Your task to perform on an android device: turn vacation reply on in the gmail app Image 0: 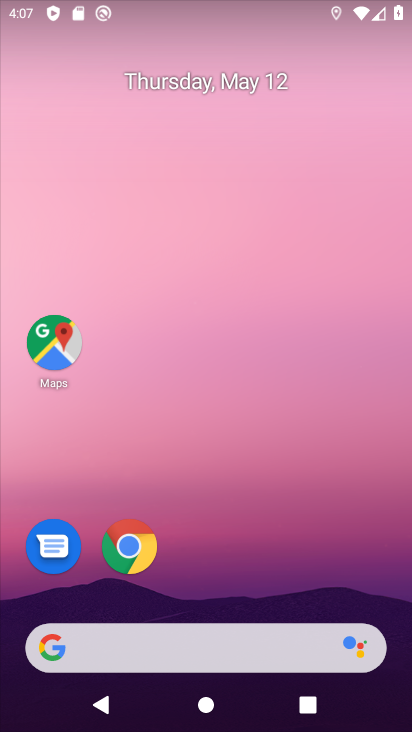
Step 0: drag from (249, 515) to (200, 21)
Your task to perform on an android device: turn vacation reply on in the gmail app Image 1: 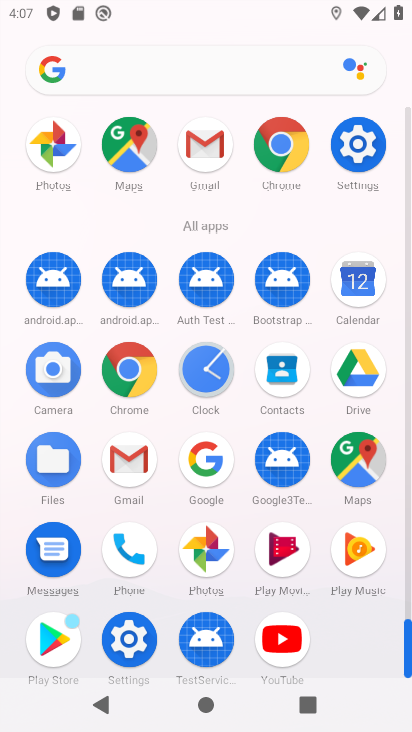
Step 1: drag from (9, 467) to (19, 216)
Your task to perform on an android device: turn vacation reply on in the gmail app Image 2: 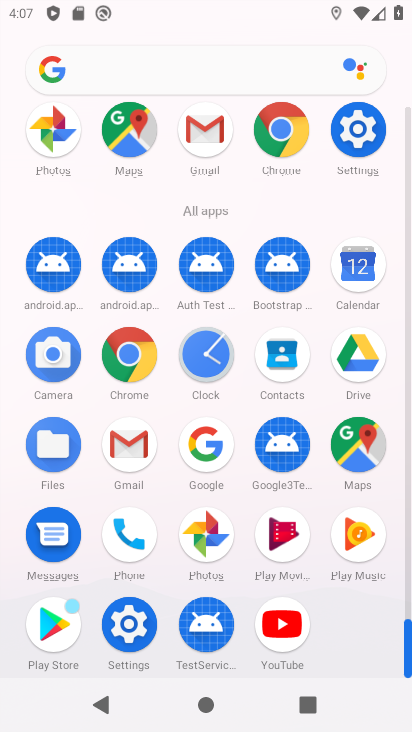
Step 2: click (123, 440)
Your task to perform on an android device: turn vacation reply on in the gmail app Image 3: 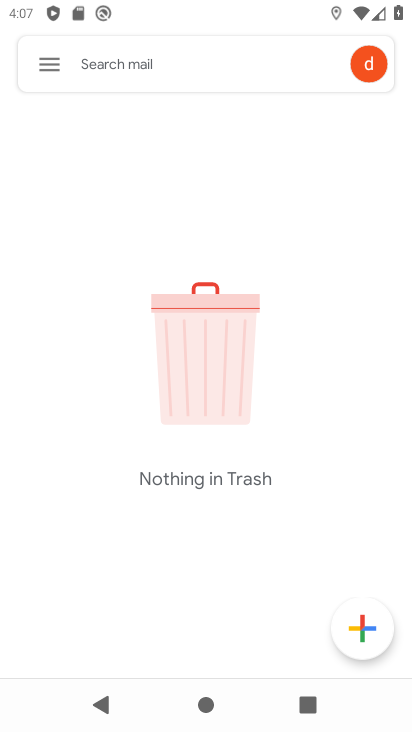
Step 3: click (47, 62)
Your task to perform on an android device: turn vacation reply on in the gmail app Image 4: 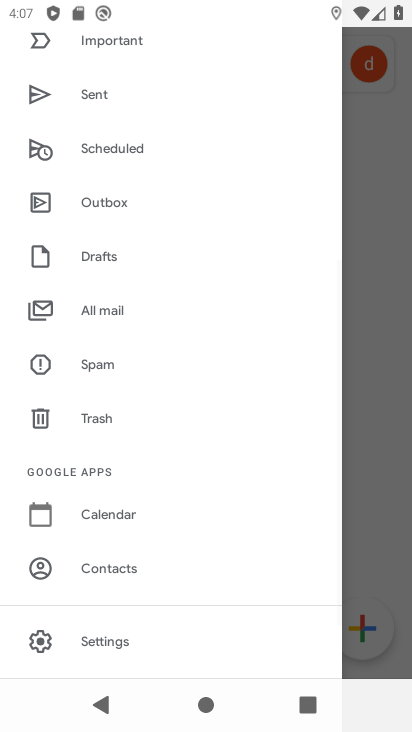
Step 4: drag from (175, 600) to (191, 173)
Your task to perform on an android device: turn vacation reply on in the gmail app Image 5: 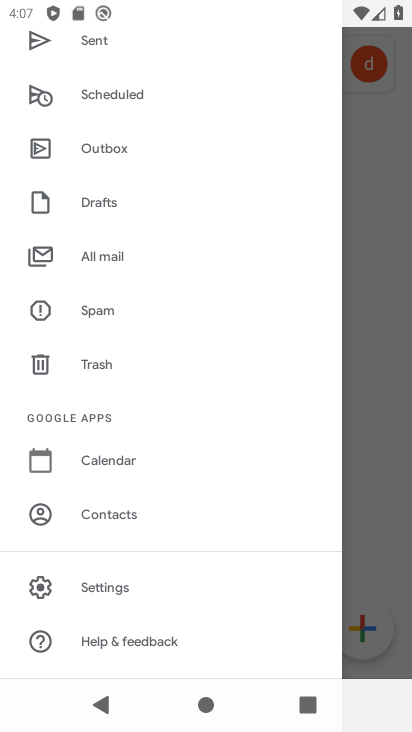
Step 5: click (91, 582)
Your task to perform on an android device: turn vacation reply on in the gmail app Image 6: 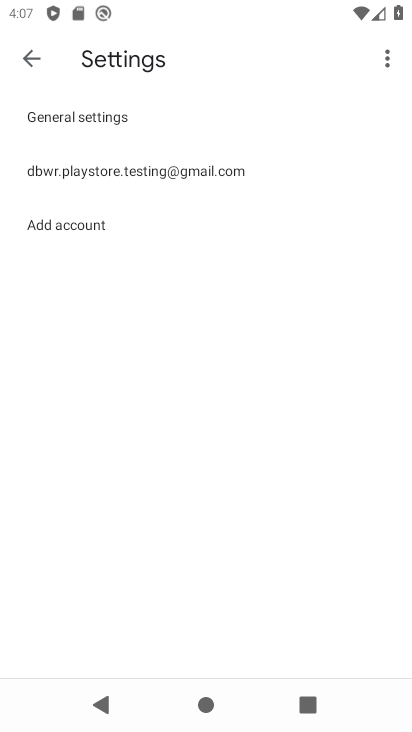
Step 6: click (154, 177)
Your task to perform on an android device: turn vacation reply on in the gmail app Image 7: 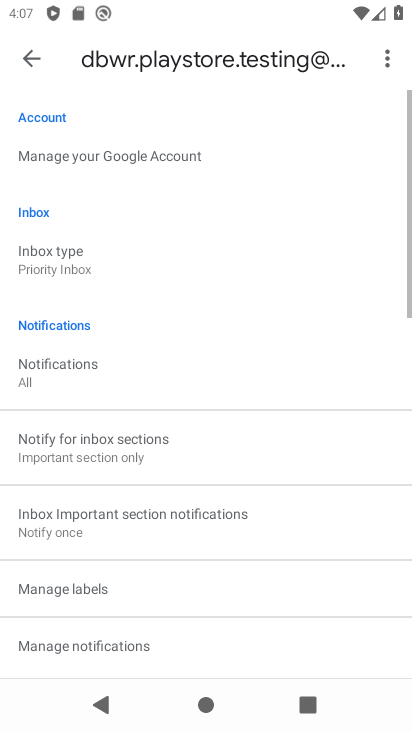
Step 7: drag from (213, 615) to (219, 139)
Your task to perform on an android device: turn vacation reply on in the gmail app Image 8: 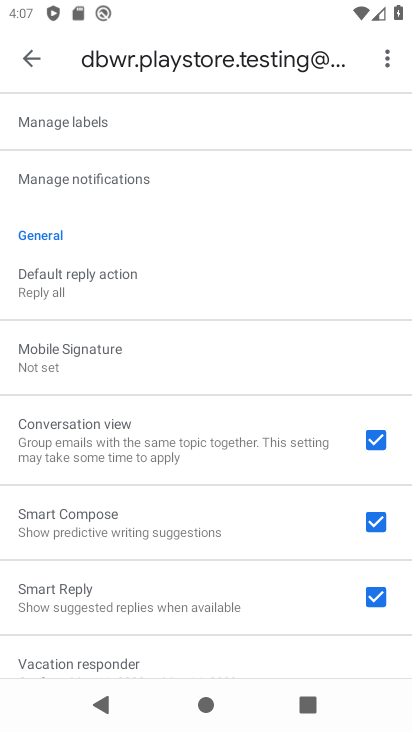
Step 8: drag from (186, 517) to (202, 181)
Your task to perform on an android device: turn vacation reply on in the gmail app Image 9: 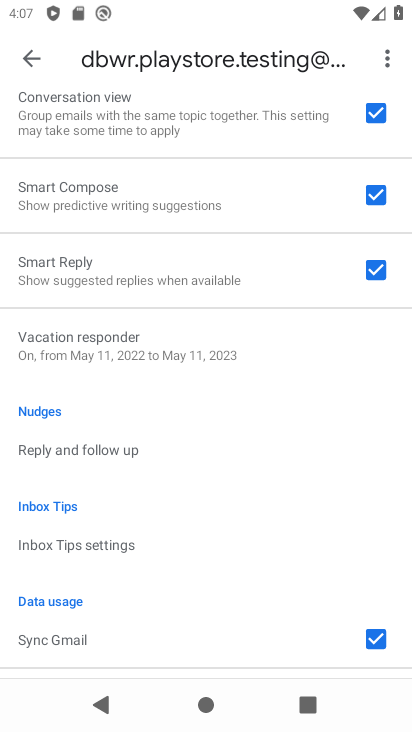
Step 9: click (132, 339)
Your task to perform on an android device: turn vacation reply on in the gmail app Image 10: 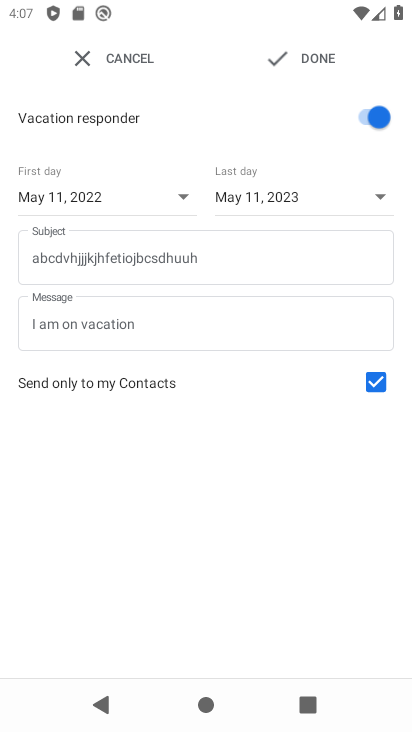
Step 10: click (291, 58)
Your task to perform on an android device: turn vacation reply on in the gmail app Image 11: 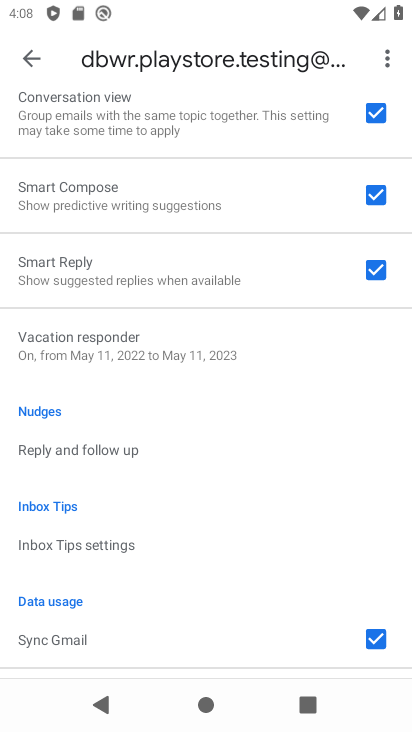
Step 11: task complete